Your task to perform on an android device: Show me popular videos on Youtube Image 0: 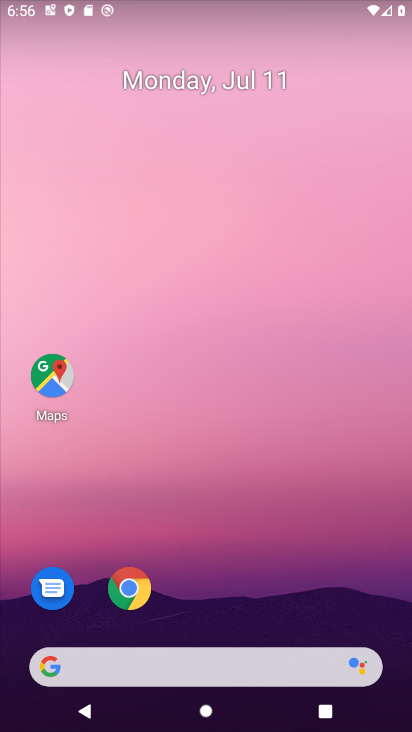
Step 0: drag from (367, 625) to (263, 74)
Your task to perform on an android device: Show me popular videos on Youtube Image 1: 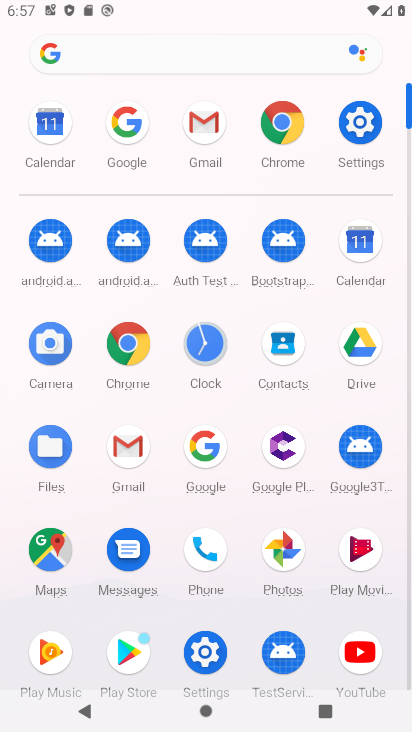
Step 1: click (376, 670)
Your task to perform on an android device: Show me popular videos on Youtube Image 2: 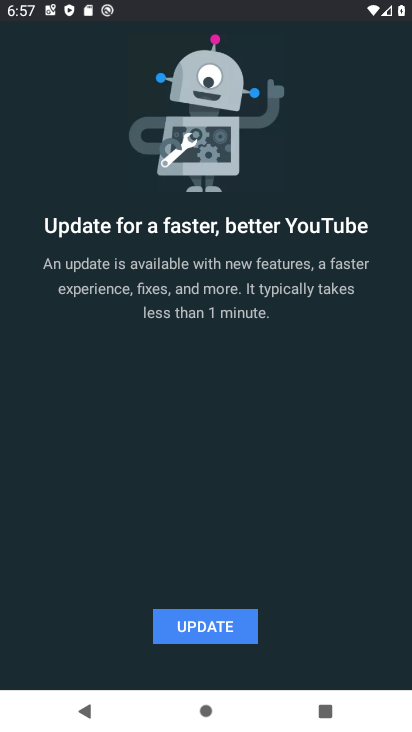
Step 2: click (209, 627)
Your task to perform on an android device: Show me popular videos on Youtube Image 3: 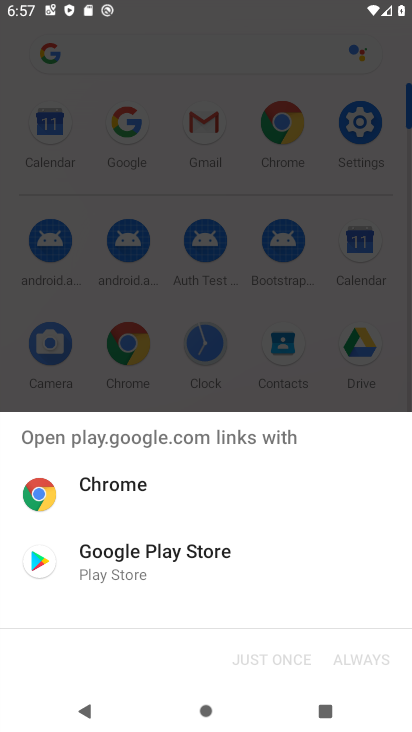
Step 3: click (112, 548)
Your task to perform on an android device: Show me popular videos on Youtube Image 4: 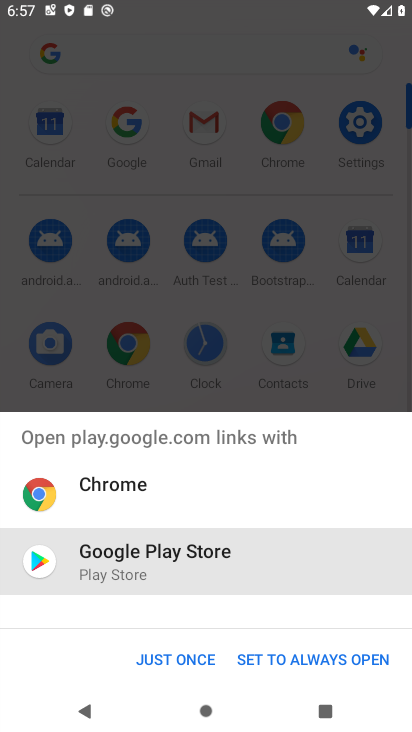
Step 4: click (181, 660)
Your task to perform on an android device: Show me popular videos on Youtube Image 5: 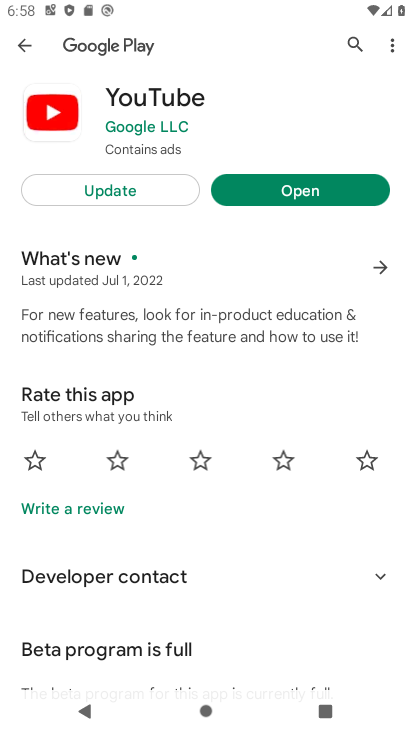
Step 5: click (97, 179)
Your task to perform on an android device: Show me popular videos on Youtube Image 6: 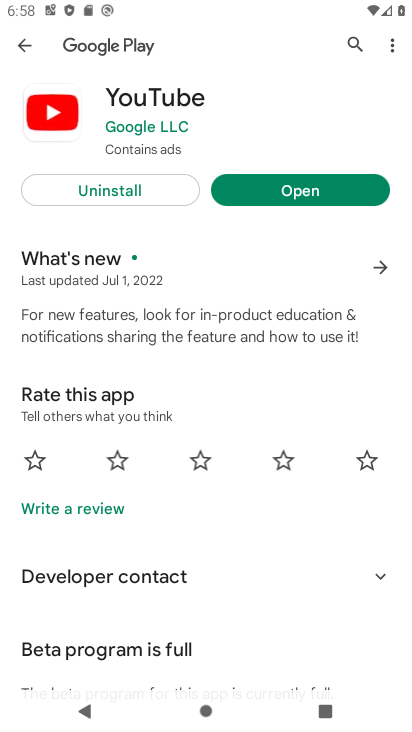
Step 6: click (286, 196)
Your task to perform on an android device: Show me popular videos on Youtube Image 7: 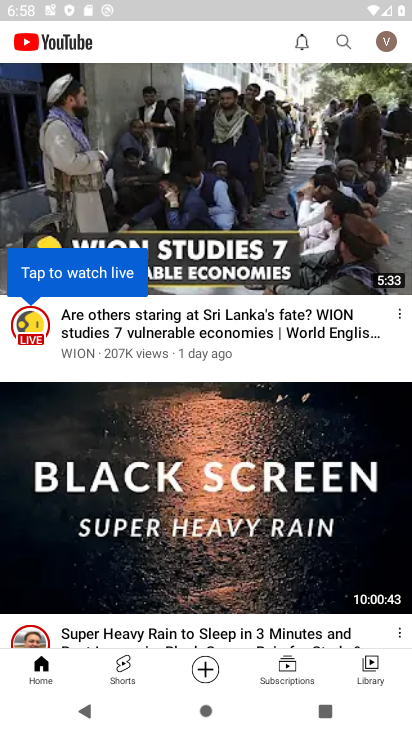
Step 7: click (372, 680)
Your task to perform on an android device: Show me popular videos on Youtube Image 8: 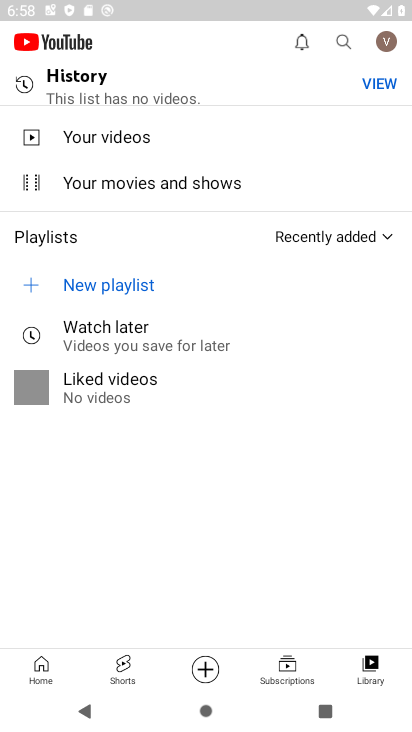
Step 8: task complete